Your task to perform on an android device: add a label to a message in the gmail app Image 0: 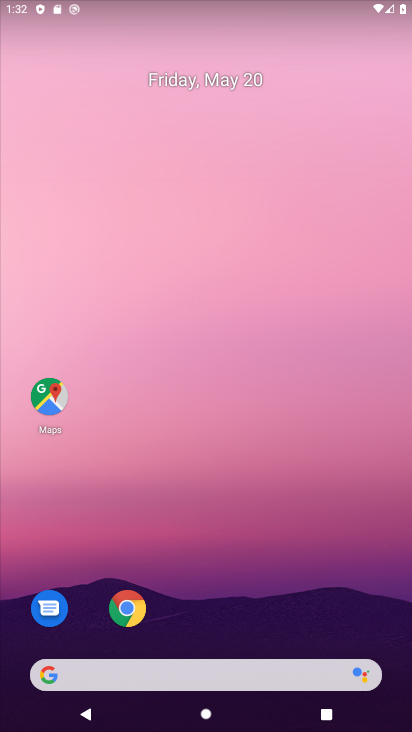
Step 0: drag from (265, 379) to (263, 221)
Your task to perform on an android device: add a label to a message in the gmail app Image 1: 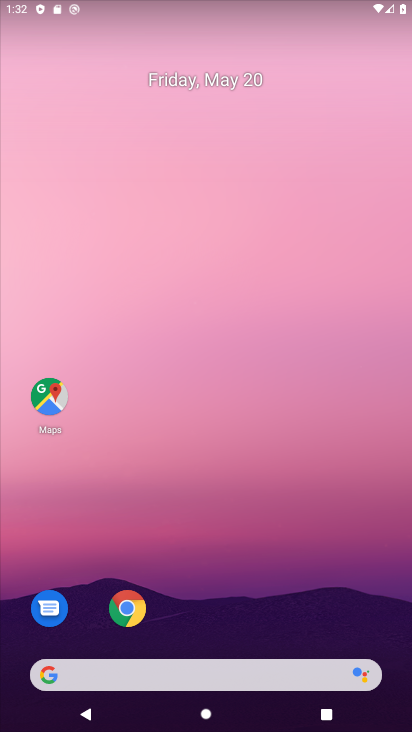
Step 1: drag from (281, 523) to (298, 118)
Your task to perform on an android device: add a label to a message in the gmail app Image 2: 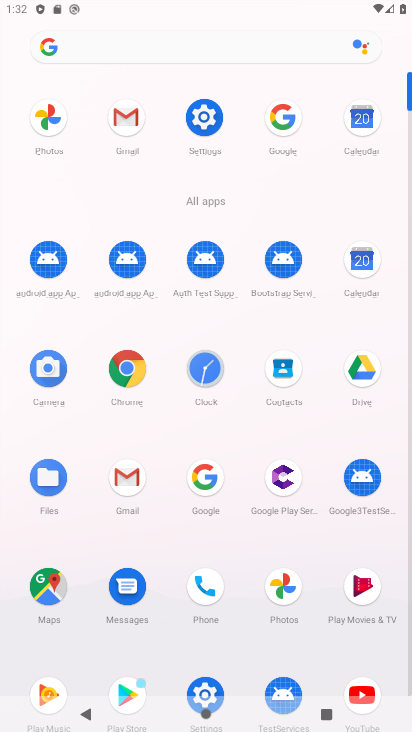
Step 2: click (113, 480)
Your task to perform on an android device: add a label to a message in the gmail app Image 3: 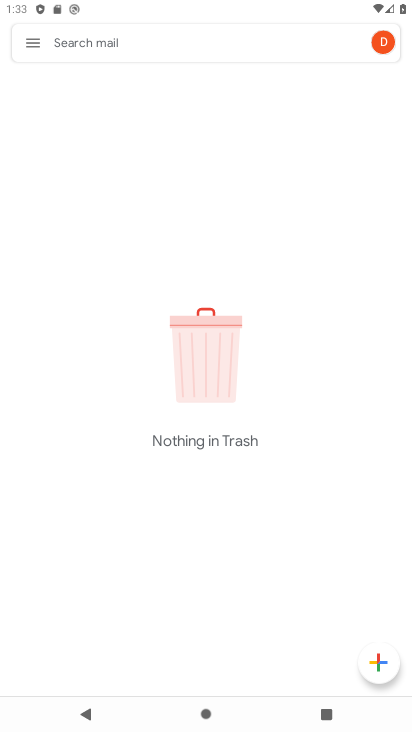
Step 3: click (30, 40)
Your task to perform on an android device: add a label to a message in the gmail app Image 4: 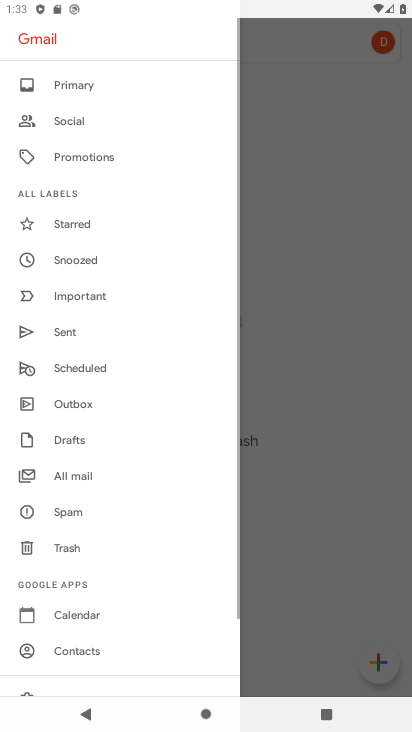
Step 4: drag from (89, 112) to (125, 420)
Your task to perform on an android device: add a label to a message in the gmail app Image 5: 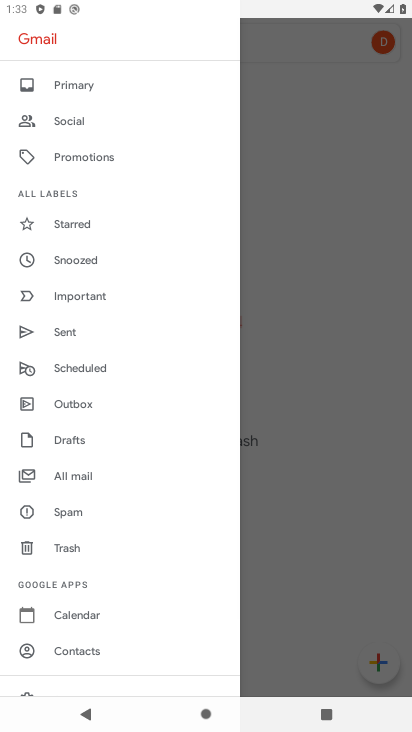
Step 5: click (85, 88)
Your task to perform on an android device: add a label to a message in the gmail app Image 6: 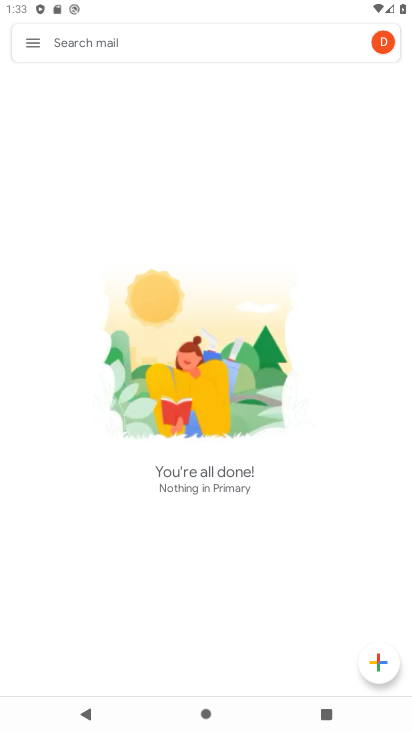
Step 6: task complete